Your task to perform on an android device: install app "Booking.com: Hotels and more" Image 0: 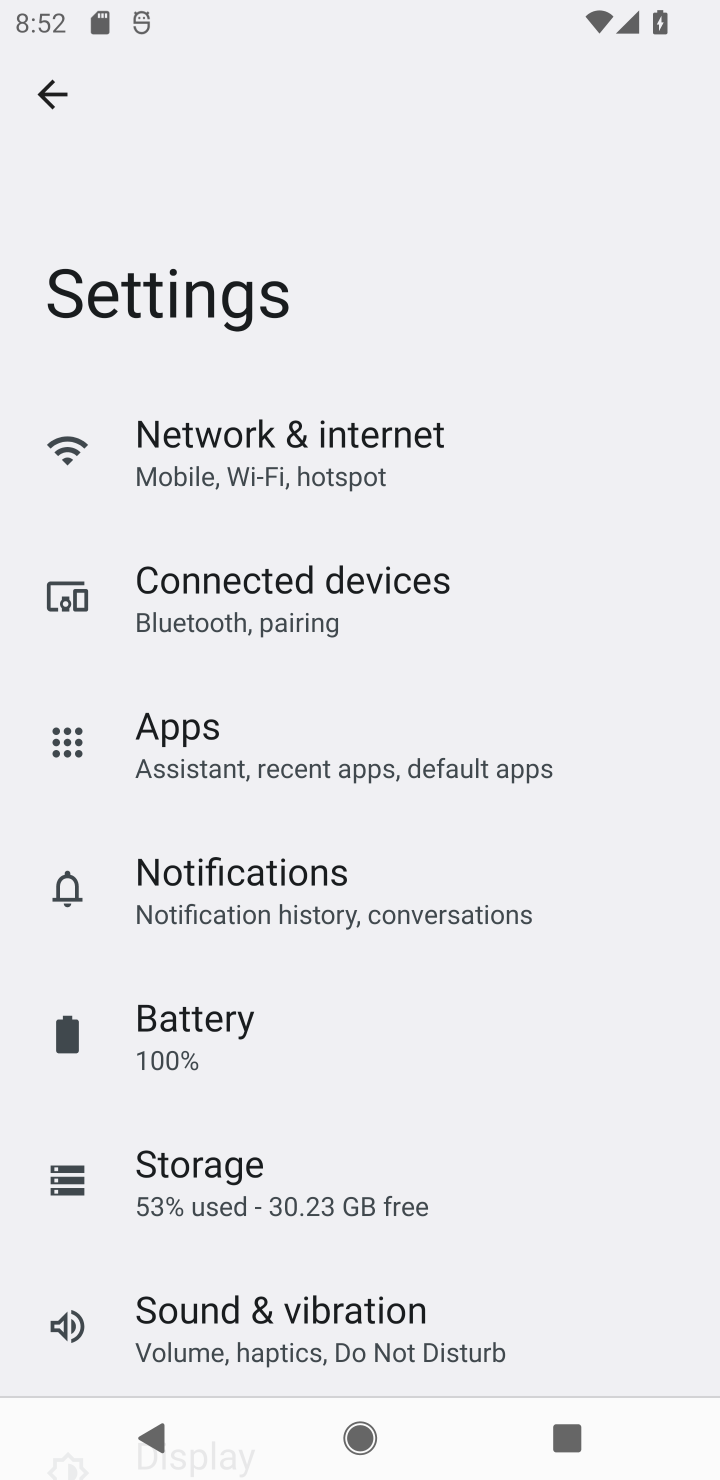
Step 0: press home button
Your task to perform on an android device: install app "Booking.com: Hotels and more" Image 1: 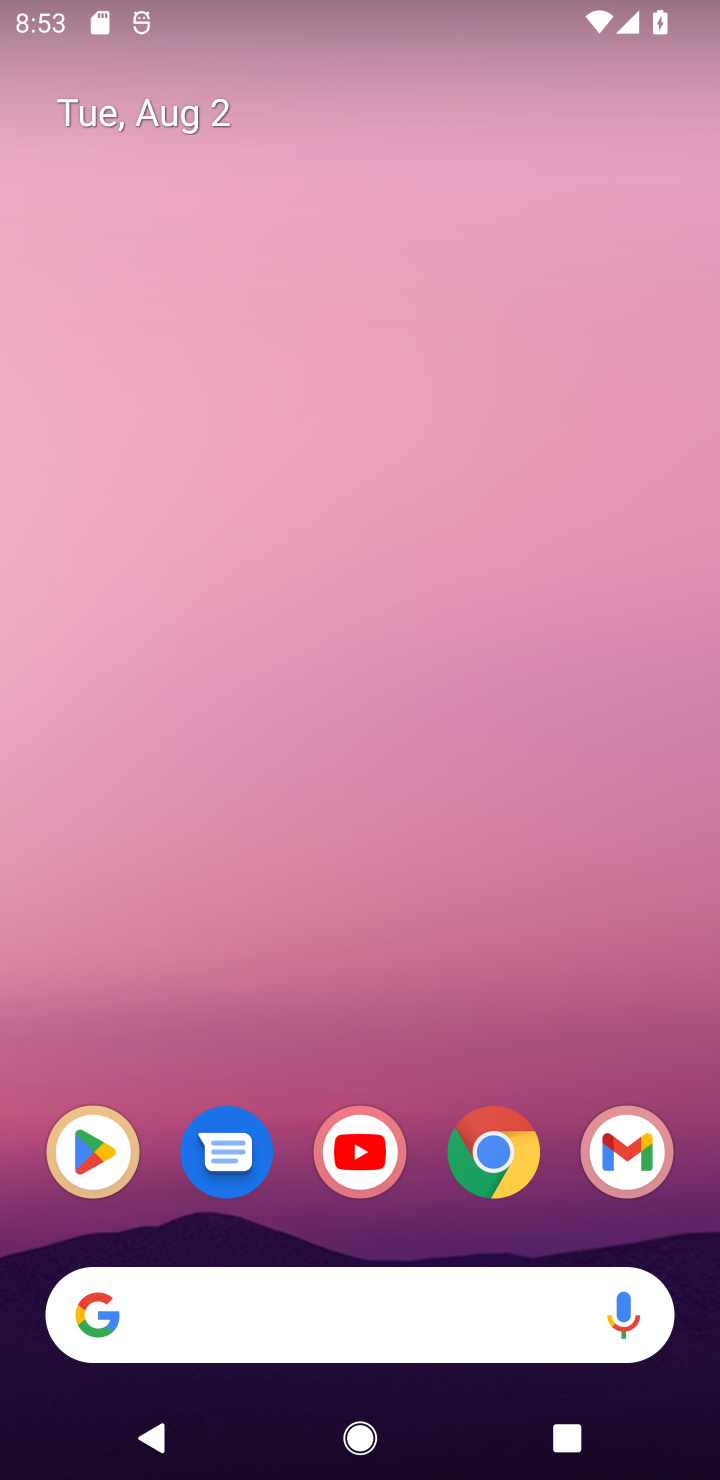
Step 1: click (120, 1158)
Your task to perform on an android device: install app "Booking.com: Hotels and more" Image 2: 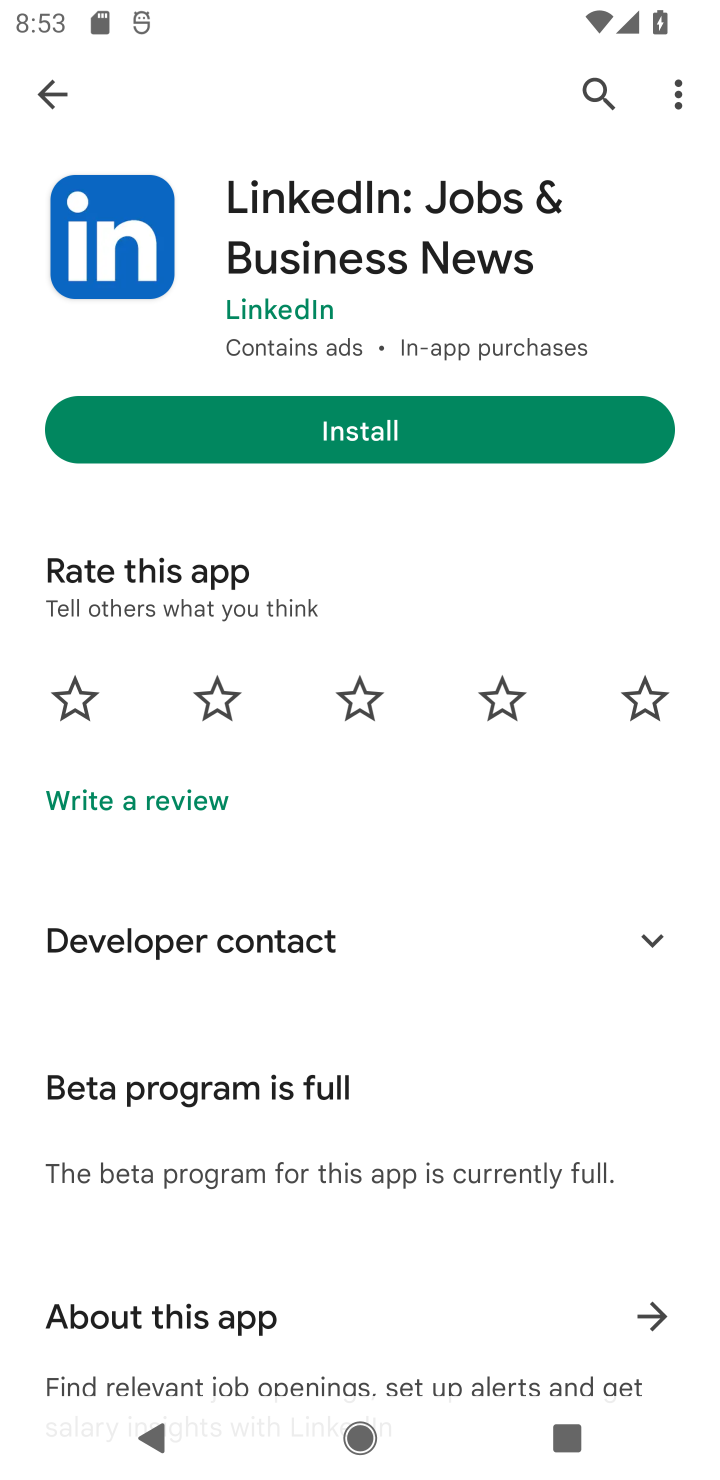
Step 2: click (26, 91)
Your task to perform on an android device: install app "Booking.com: Hotels and more" Image 3: 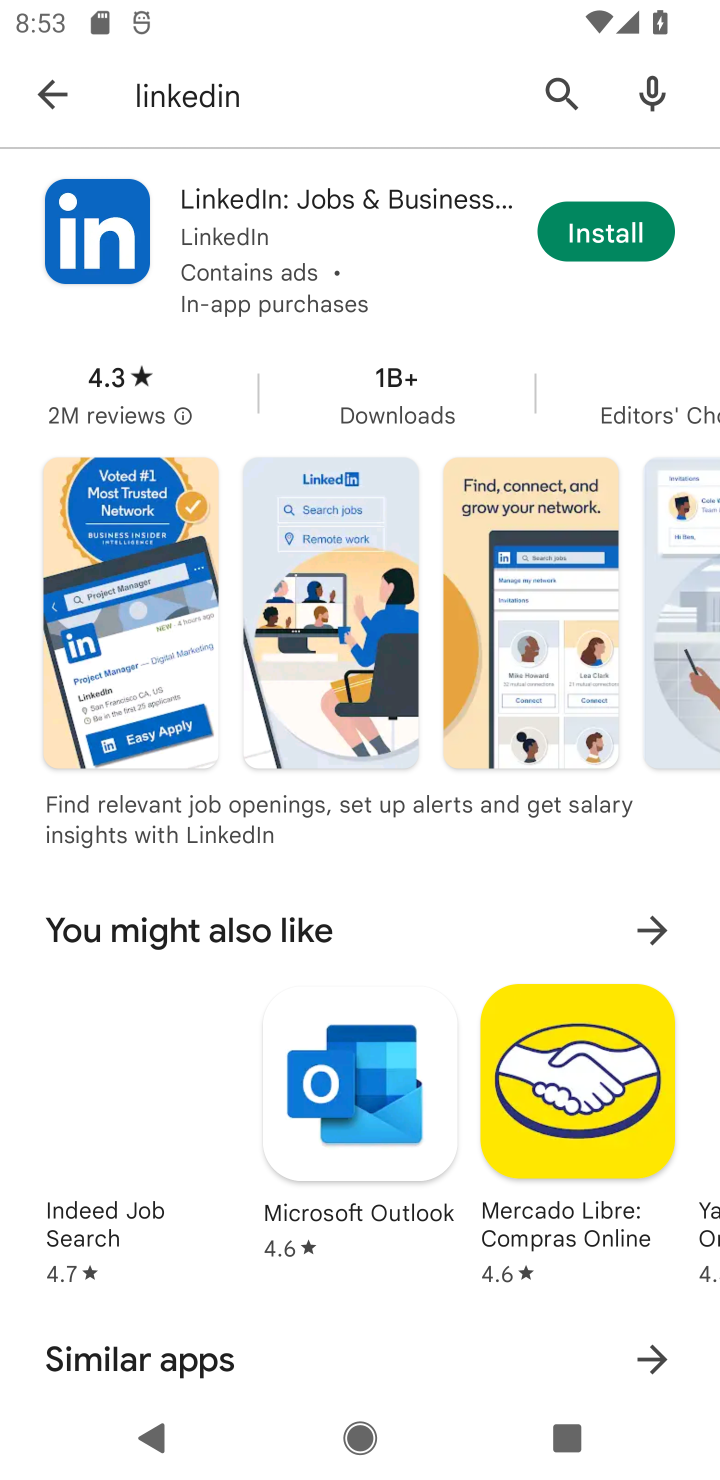
Step 3: click (55, 94)
Your task to perform on an android device: install app "Booking.com: Hotels and more" Image 4: 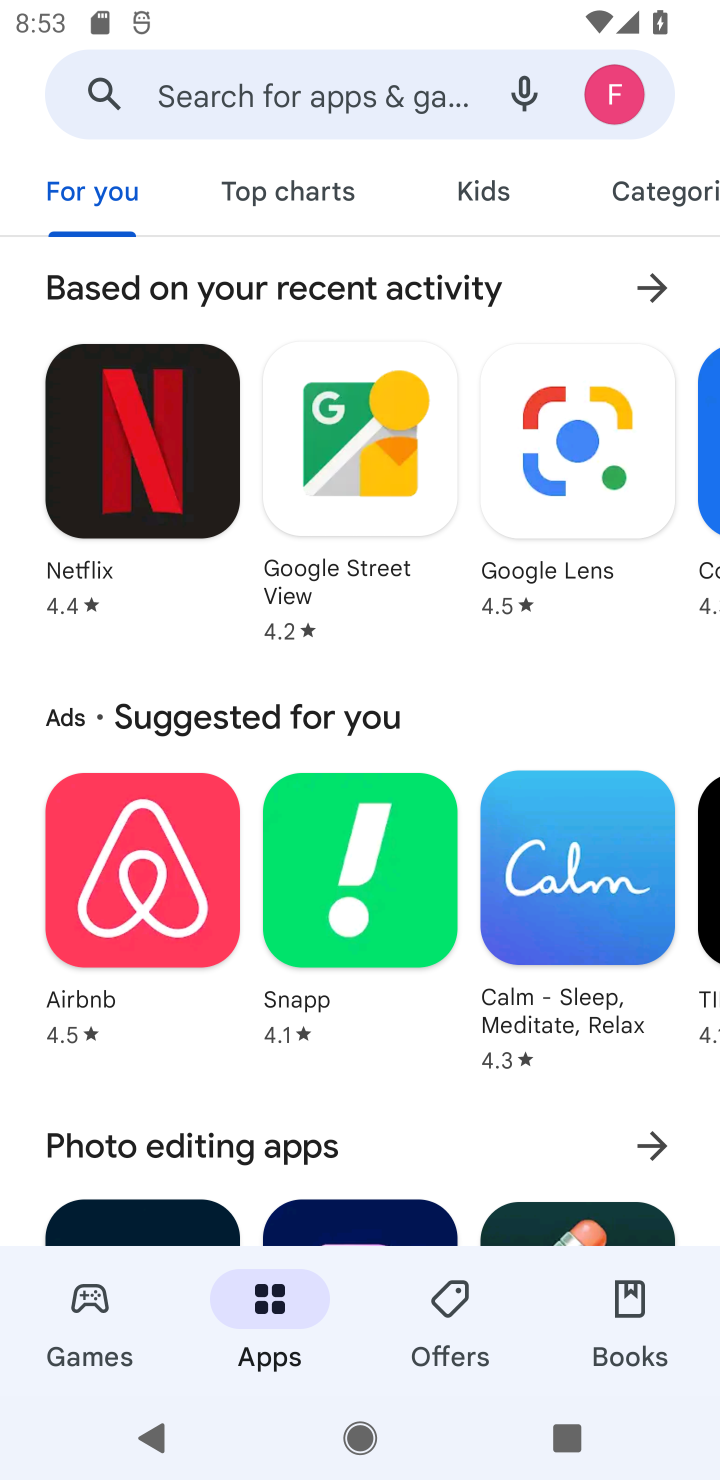
Step 4: click (230, 94)
Your task to perform on an android device: install app "Booking.com: Hotels and more" Image 5: 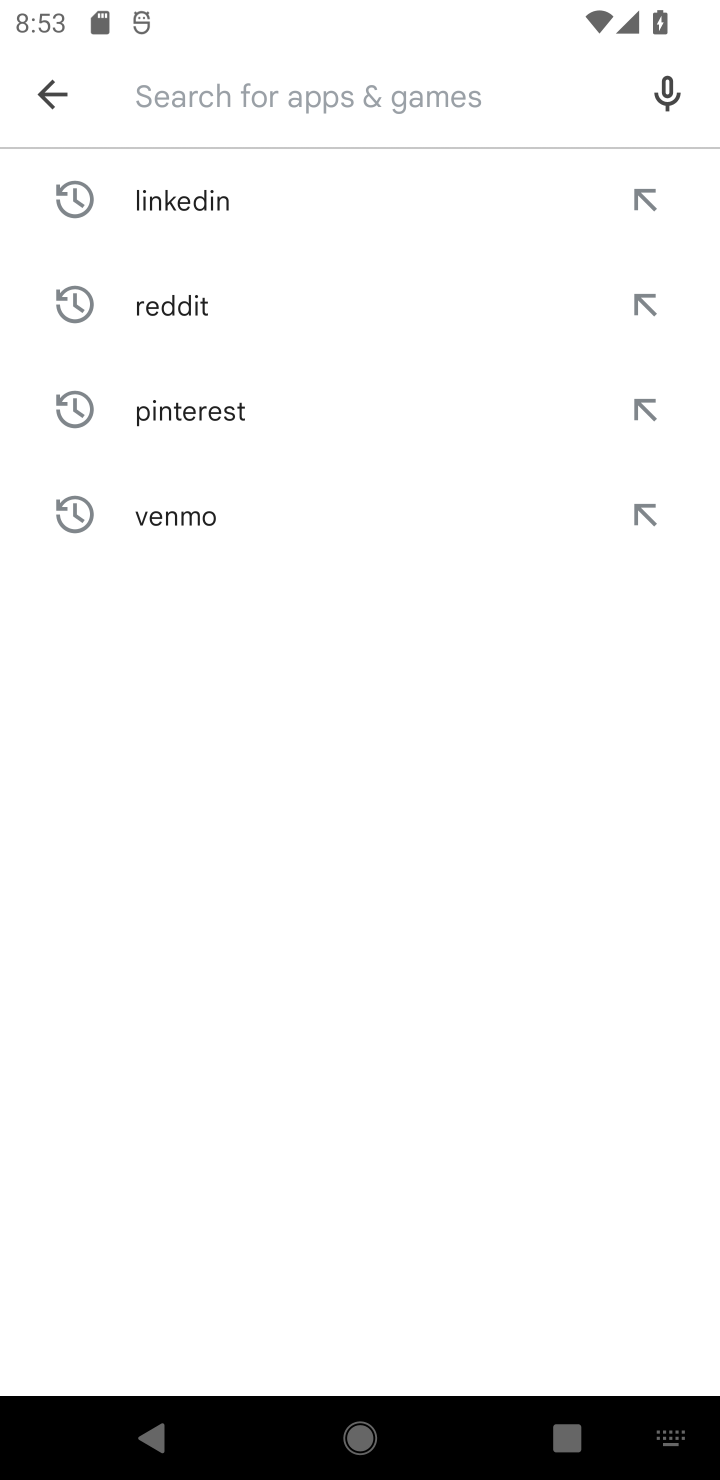
Step 5: type "Booking.com"
Your task to perform on an android device: install app "Booking.com: Hotels and more" Image 6: 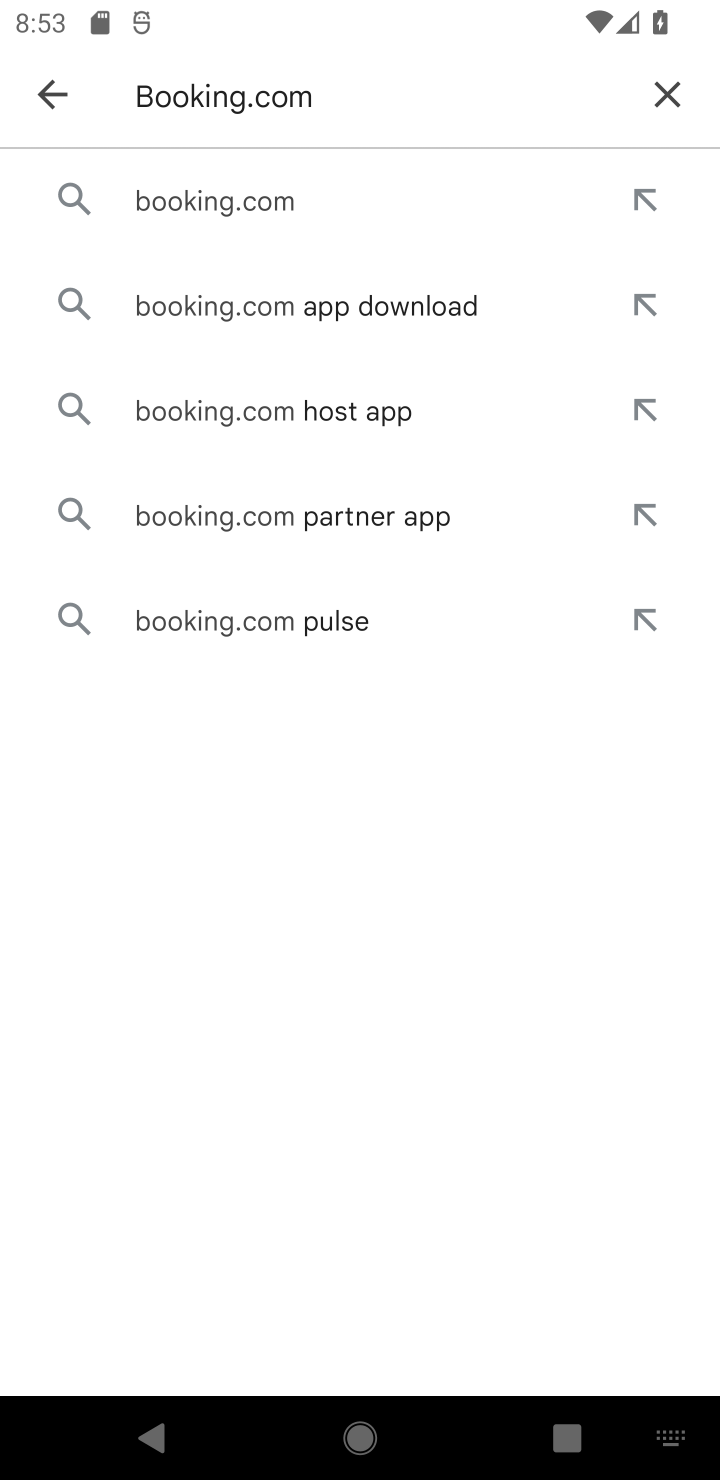
Step 6: click (223, 191)
Your task to perform on an android device: install app "Booking.com: Hotels and more" Image 7: 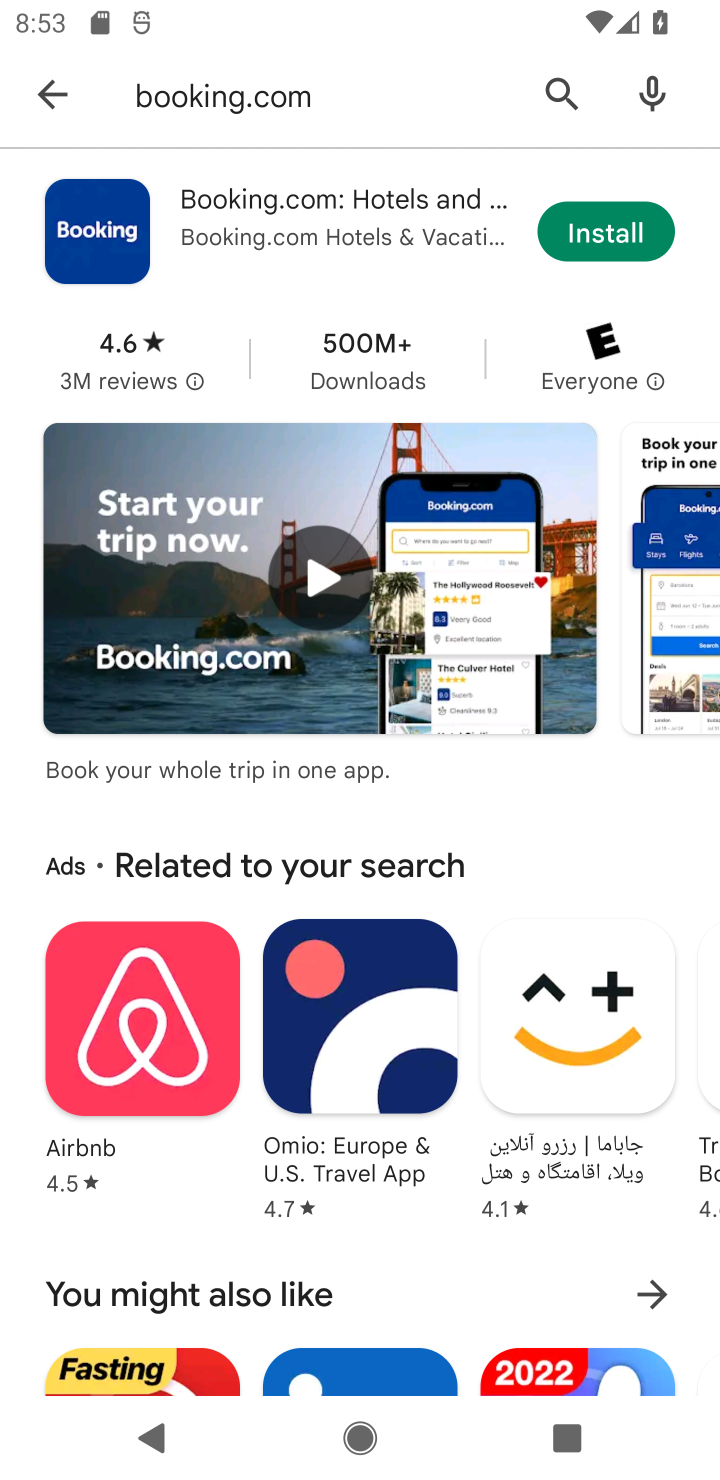
Step 7: click (601, 221)
Your task to perform on an android device: install app "Booking.com: Hotels and more" Image 8: 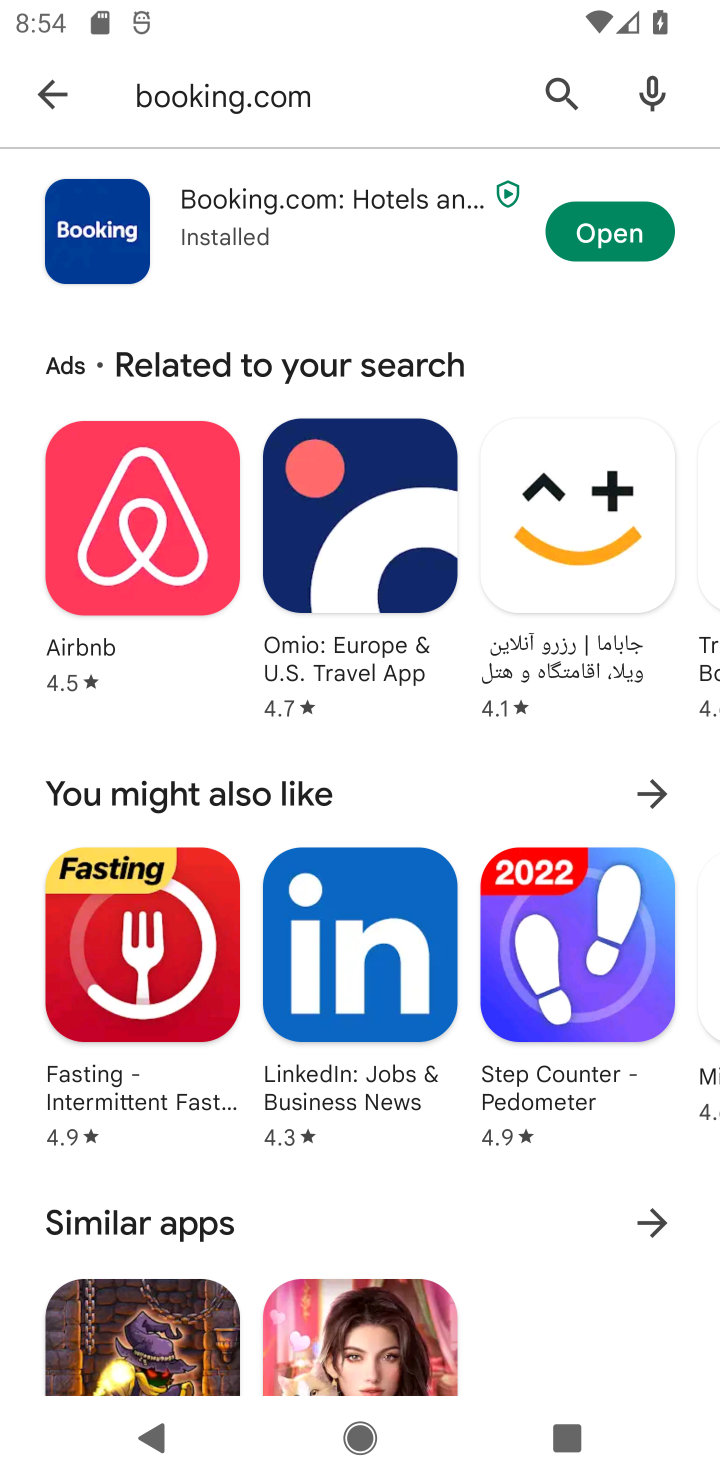
Step 8: task complete